Your task to perform on an android device: Open the Play Movies app and select the watchlist tab. Image 0: 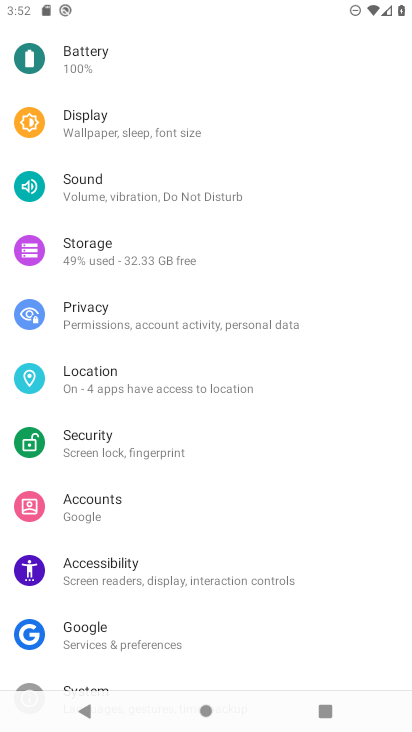
Step 0: press home button
Your task to perform on an android device: Open the Play Movies app and select the watchlist tab. Image 1: 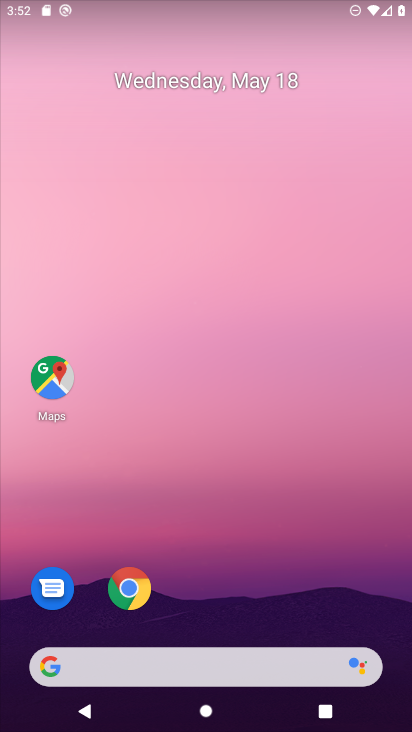
Step 1: drag from (307, 585) to (301, 236)
Your task to perform on an android device: Open the Play Movies app and select the watchlist tab. Image 2: 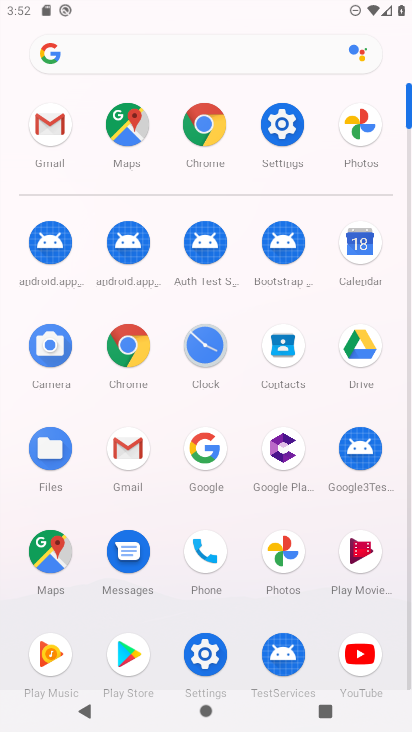
Step 2: click (347, 576)
Your task to perform on an android device: Open the Play Movies app and select the watchlist tab. Image 3: 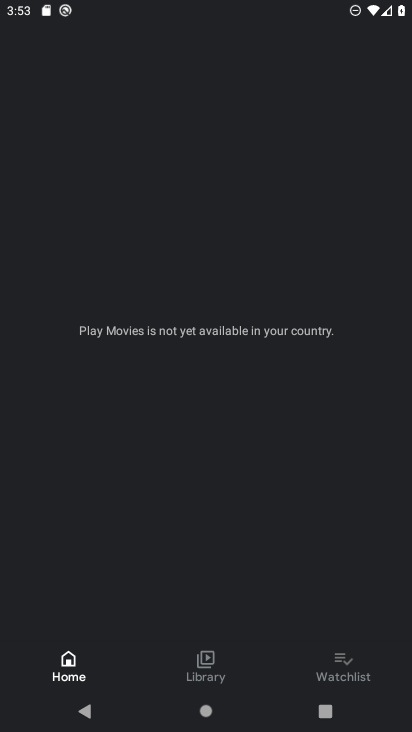
Step 3: click (332, 661)
Your task to perform on an android device: Open the Play Movies app and select the watchlist tab. Image 4: 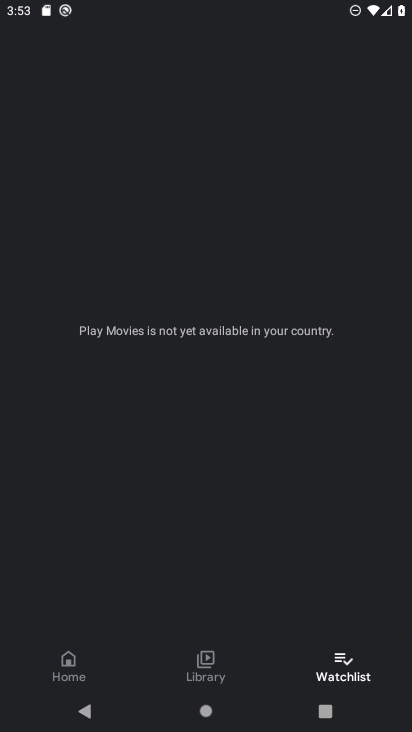
Step 4: task complete